Your task to perform on an android device: Open the Play Movies app and select the watchlist tab. Image 0: 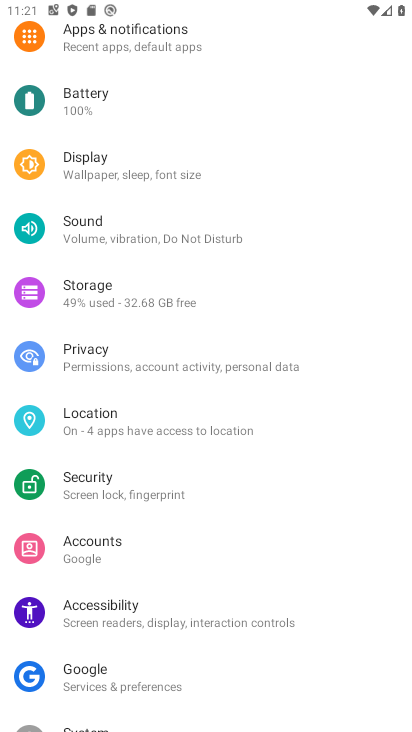
Step 0: press home button
Your task to perform on an android device: Open the Play Movies app and select the watchlist tab. Image 1: 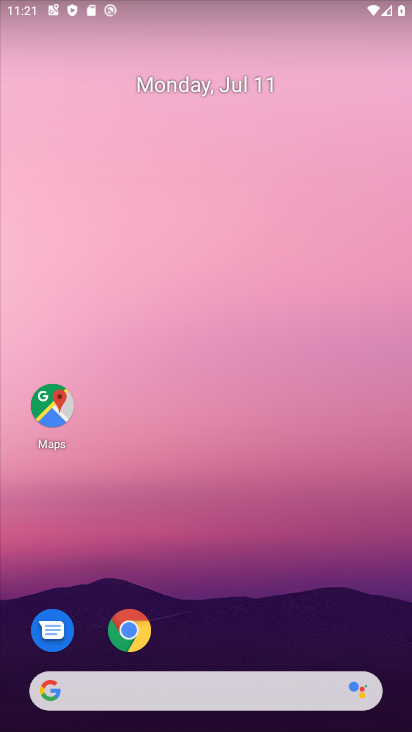
Step 1: drag from (236, 605) to (214, 3)
Your task to perform on an android device: Open the Play Movies app and select the watchlist tab. Image 2: 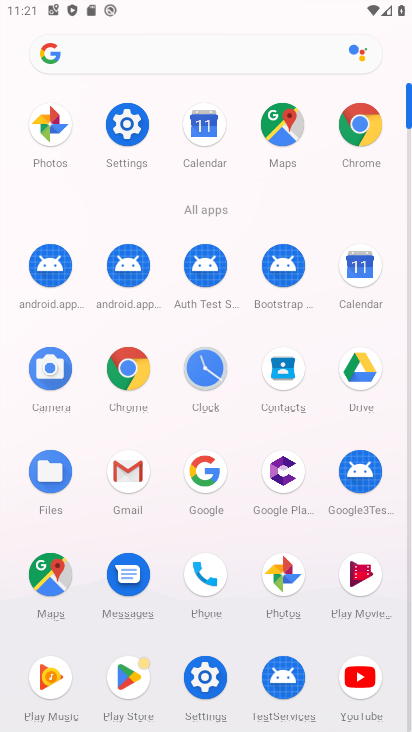
Step 2: click (364, 564)
Your task to perform on an android device: Open the Play Movies app and select the watchlist tab. Image 3: 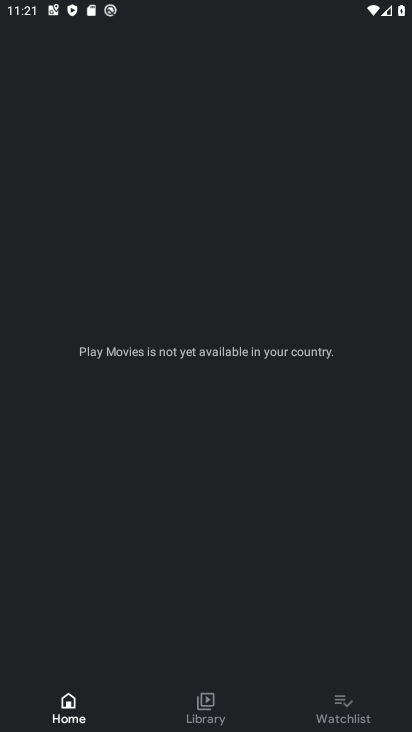
Step 3: click (341, 710)
Your task to perform on an android device: Open the Play Movies app and select the watchlist tab. Image 4: 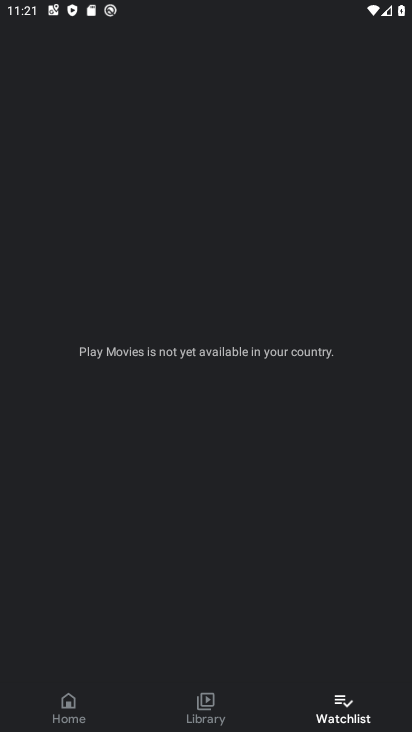
Step 4: task complete